Your task to perform on an android device: Go to internet settings Image 0: 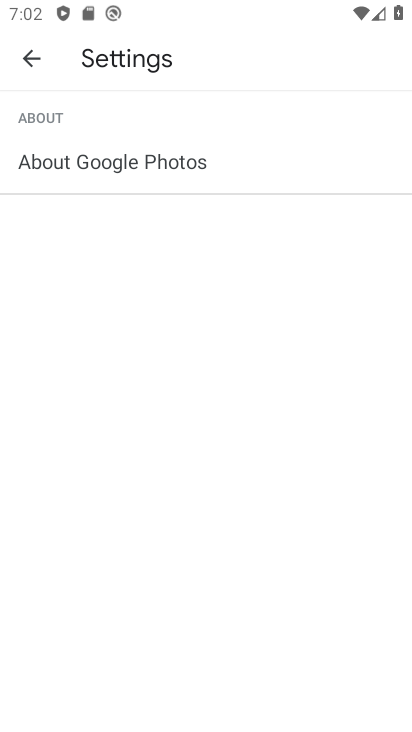
Step 0: drag from (286, 687) to (319, 136)
Your task to perform on an android device: Go to internet settings Image 1: 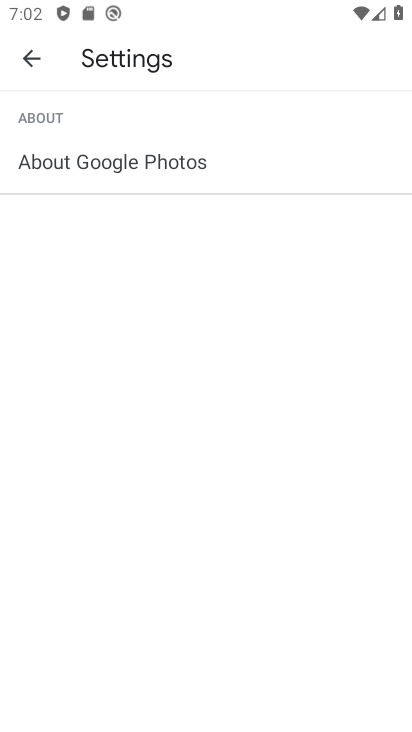
Step 1: press home button
Your task to perform on an android device: Go to internet settings Image 2: 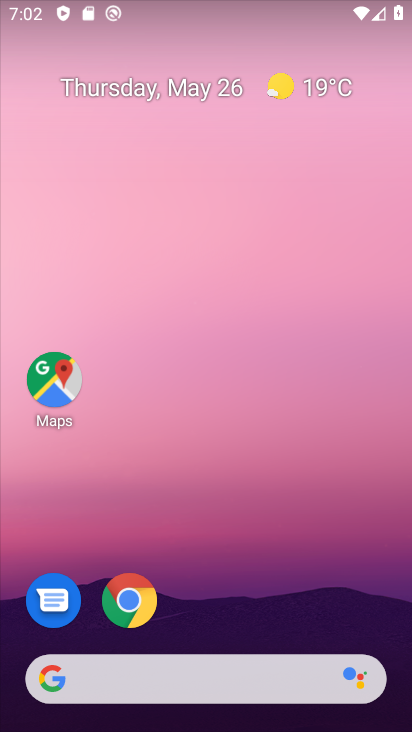
Step 2: drag from (227, 700) to (254, 108)
Your task to perform on an android device: Go to internet settings Image 3: 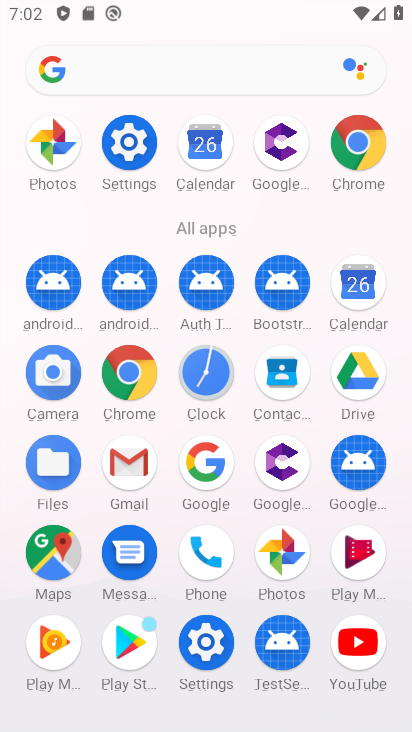
Step 3: click (125, 146)
Your task to perform on an android device: Go to internet settings Image 4: 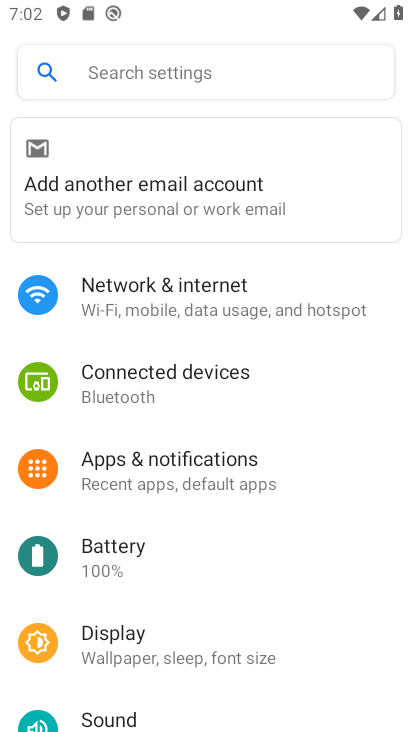
Step 4: click (145, 311)
Your task to perform on an android device: Go to internet settings Image 5: 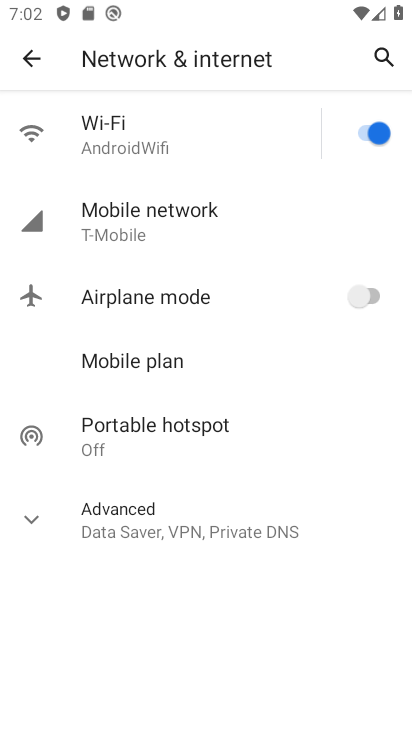
Step 5: click (175, 217)
Your task to perform on an android device: Go to internet settings Image 6: 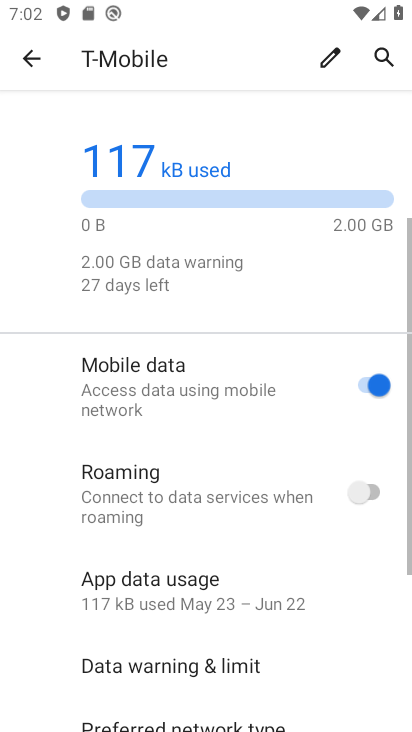
Step 6: click (35, 54)
Your task to perform on an android device: Go to internet settings Image 7: 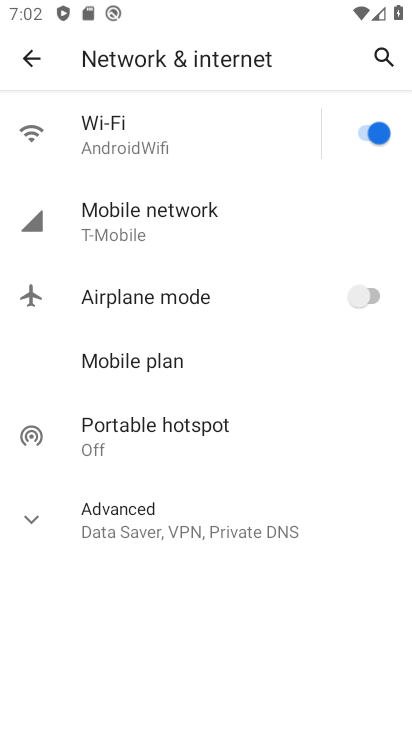
Step 7: task complete